Your task to perform on an android device: Search for Mexican restaurants on Maps Image 0: 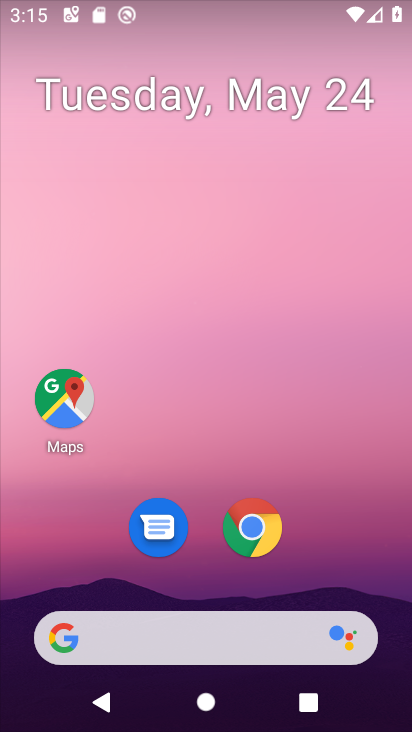
Step 0: click (67, 403)
Your task to perform on an android device: Search for Mexican restaurants on Maps Image 1: 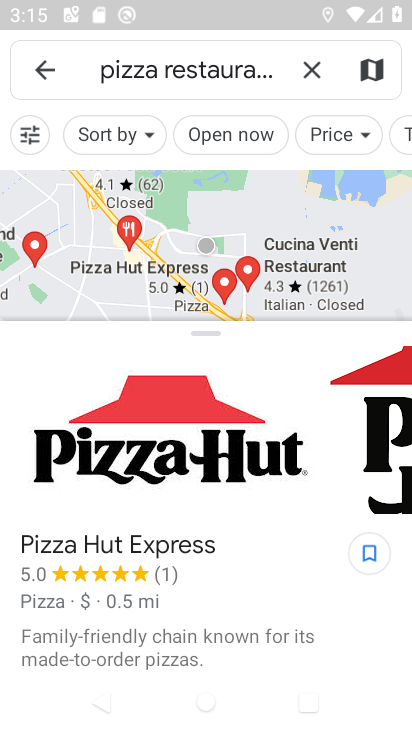
Step 1: click (307, 76)
Your task to perform on an android device: Search for Mexican restaurants on Maps Image 2: 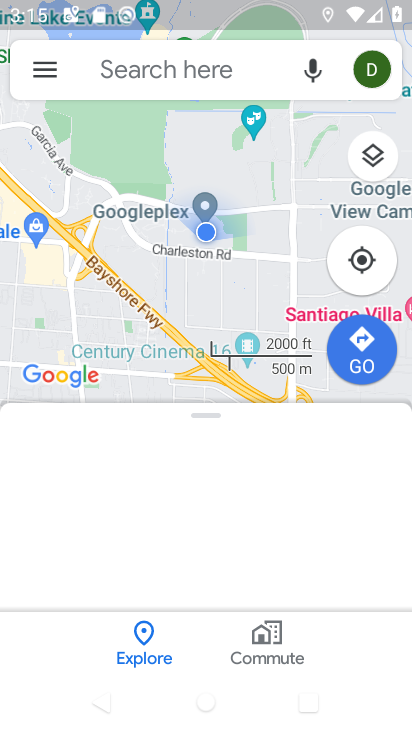
Step 2: click (110, 69)
Your task to perform on an android device: Search for Mexican restaurants on Maps Image 3: 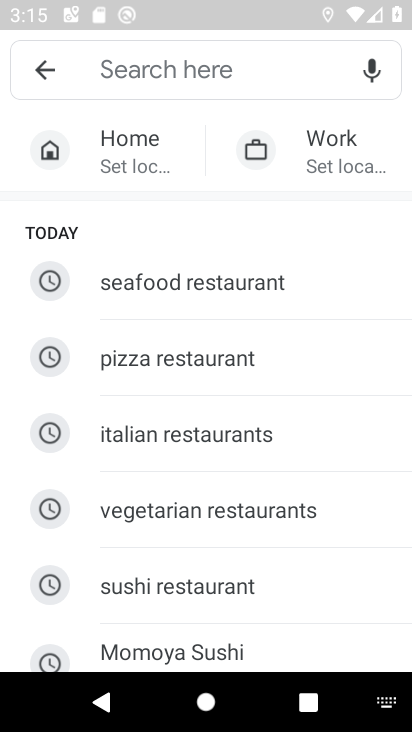
Step 3: type "mexican restaurants"
Your task to perform on an android device: Search for Mexican restaurants on Maps Image 4: 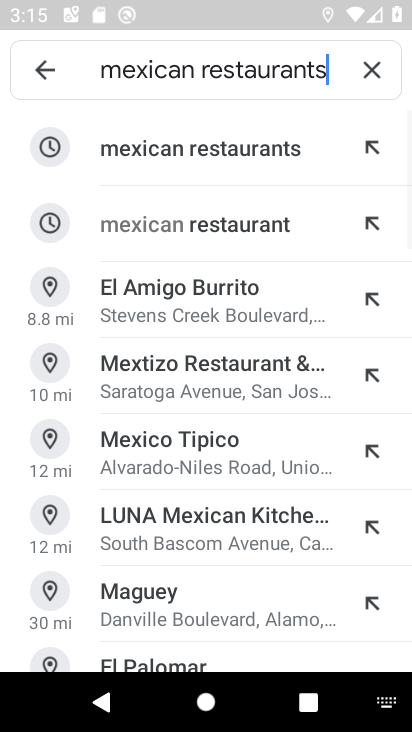
Step 4: click (214, 158)
Your task to perform on an android device: Search for Mexican restaurants on Maps Image 5: 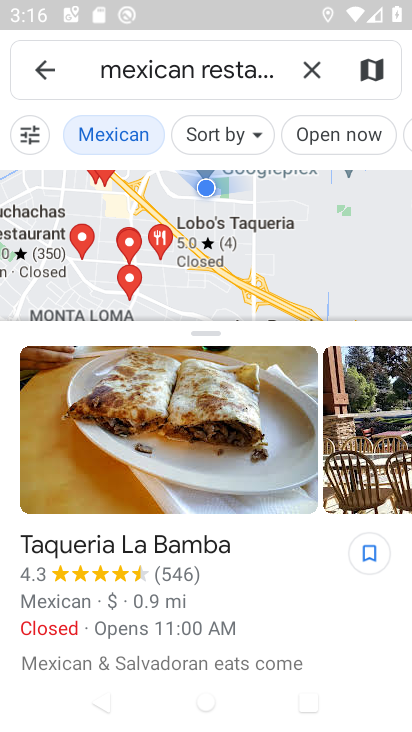
Step 5: task complete